Your task to perform on an android device: turn on wifi Image 0: 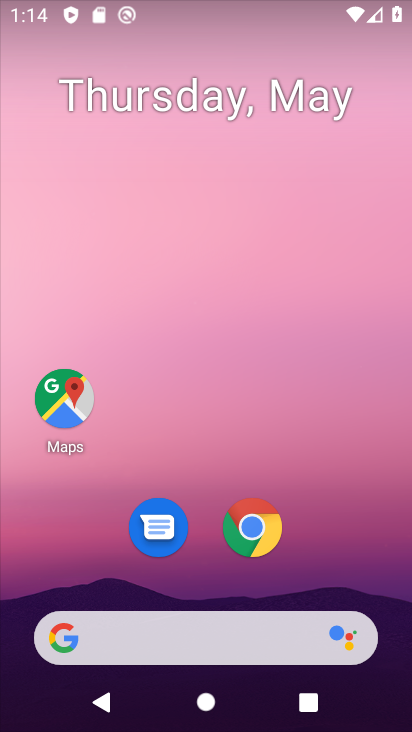
Step 0: drag from (262, 2) to (206, 719)
Your task to perform on an android device: turn on wifi Image 1: 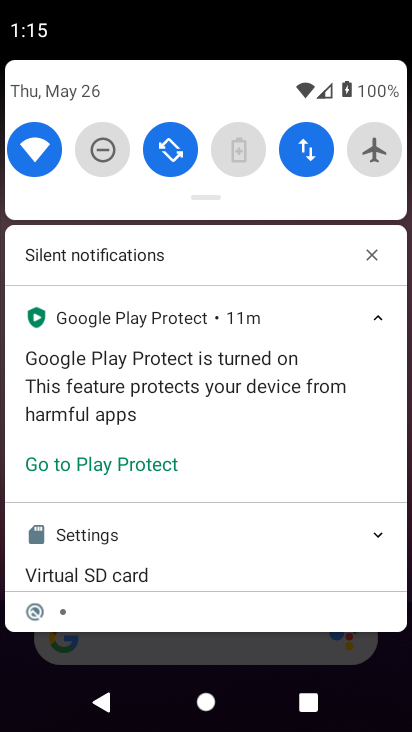
Step 1: task complete